Your task to perform on an android device: create a new album in the google photos Image 0: 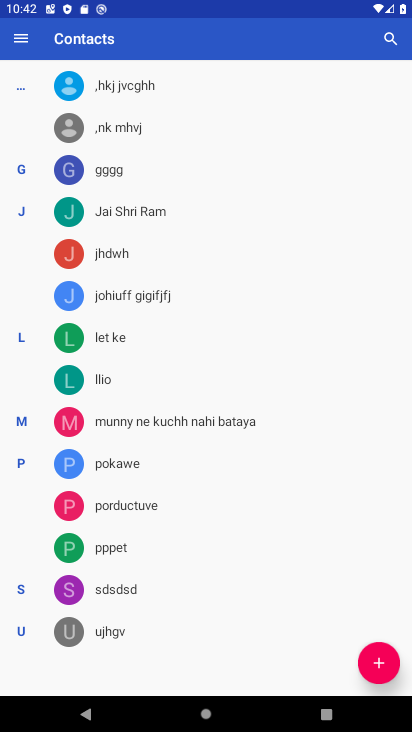
Step 0: press home button
Your task to perform on an android device: create a new album in the google photos Image 1: 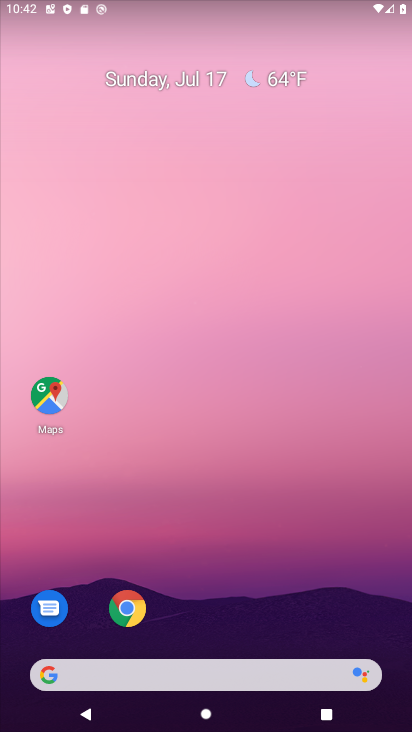
Step 1: drag from (64, 591) to (122, 353)
Your task to perform on an android device: create a new album in the google photos Image 2: 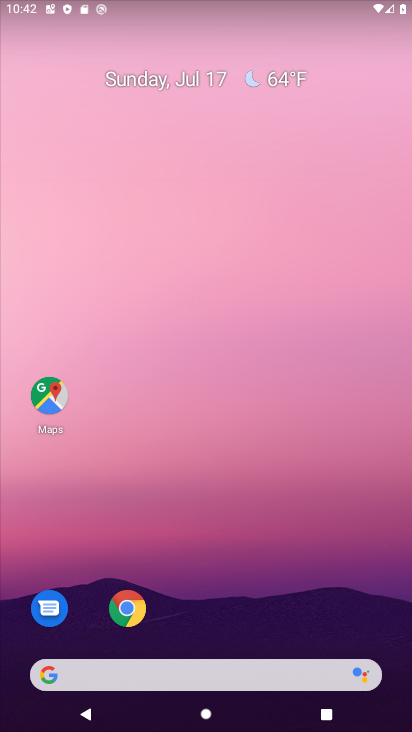
Step 2: drag from (37, 684) to (149, 112)
Your task to perform on an android device: create a new album in the google photos Image 3: 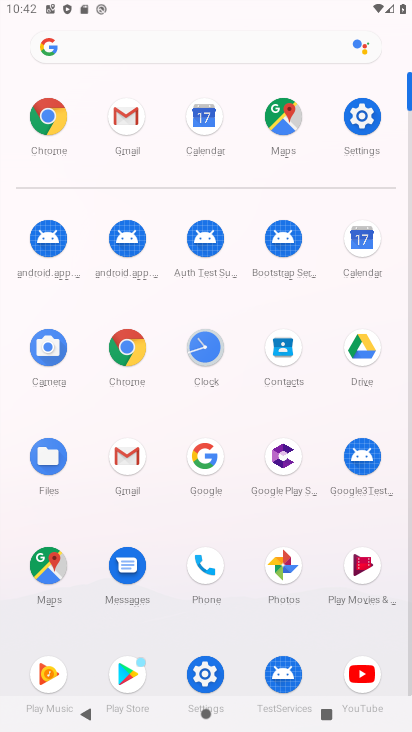
Step 3: click (273, 566)
Your task to perform on an android device: create a new album in the google photos Image 4: 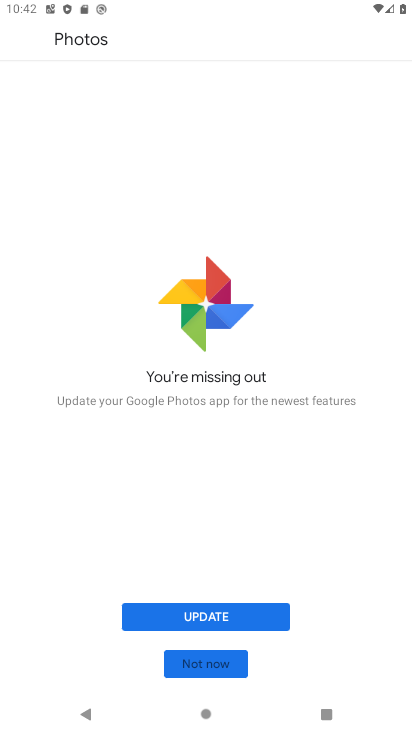
Step 4: click (199, 659)
Your task to perform on an android device: create a new album in the google photos Image 5: 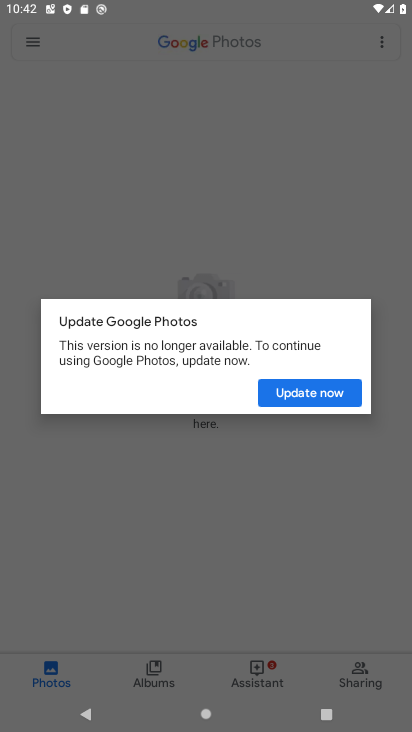
Step 5: click (310, 386)
Your task to perform on an android device: create a new album in the google photos Image 6: 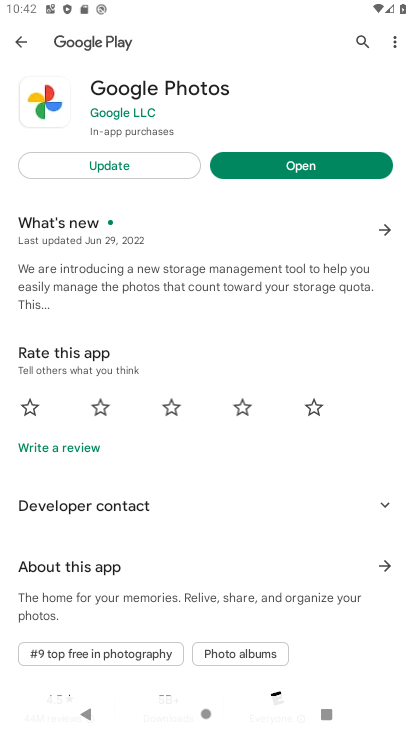
Step 6: click (290, 156)
Your task to perform on an android device: create a new album in the google photos Image 7: 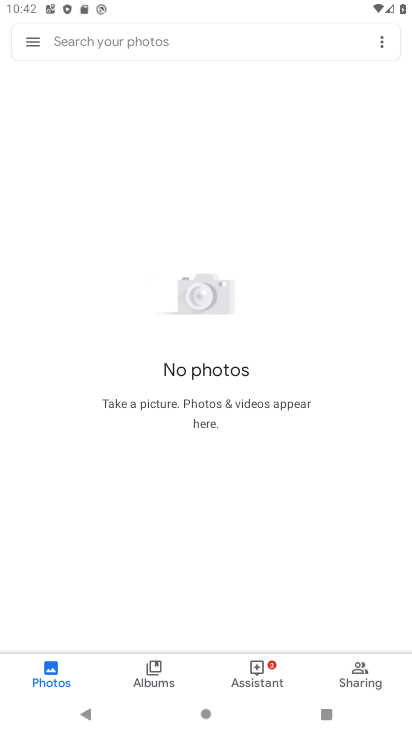
Step 7: task complete